Your task to perform on an android device: turn on notifications settings in the gmail app Image 0: 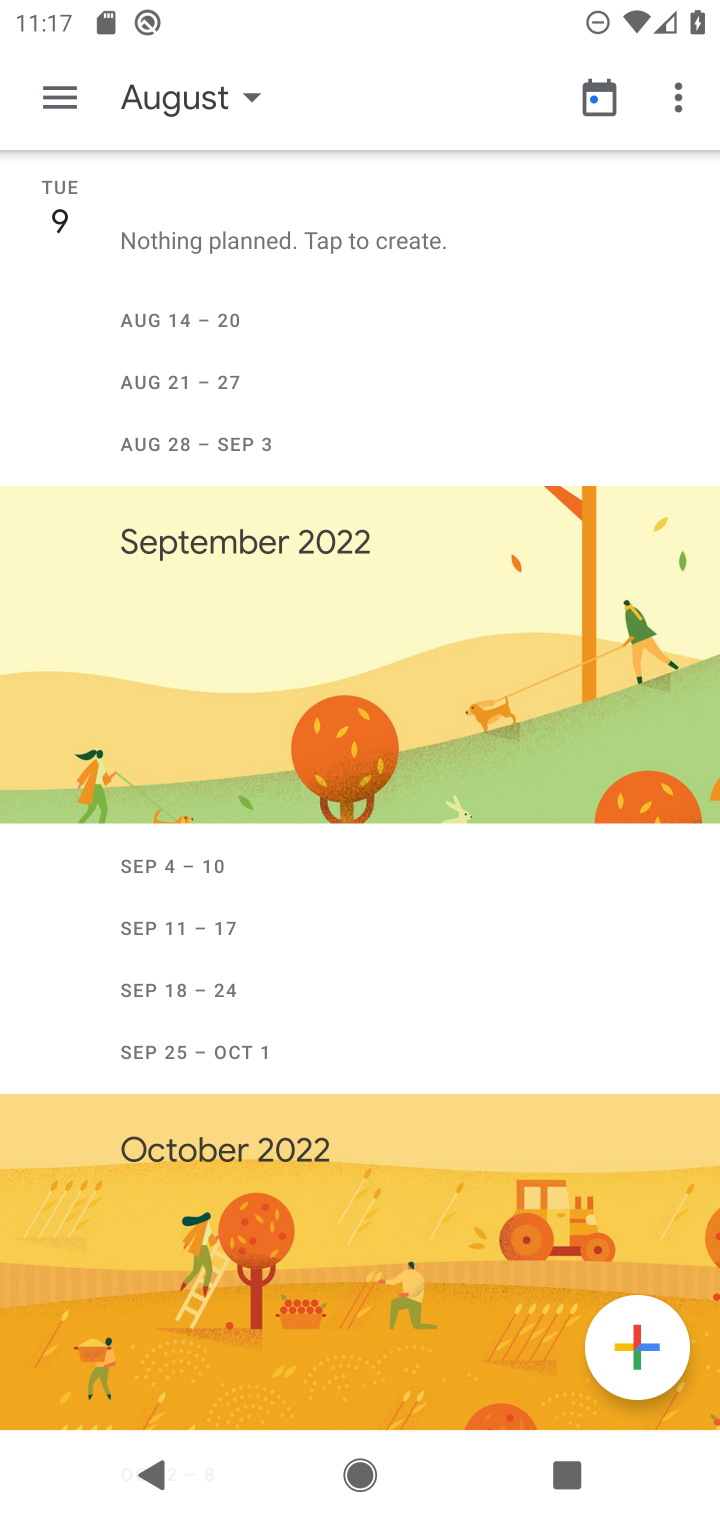
Step 0: press home button
Your task to perform on an android device: turn on notifications settings in the gmail app Image 1: 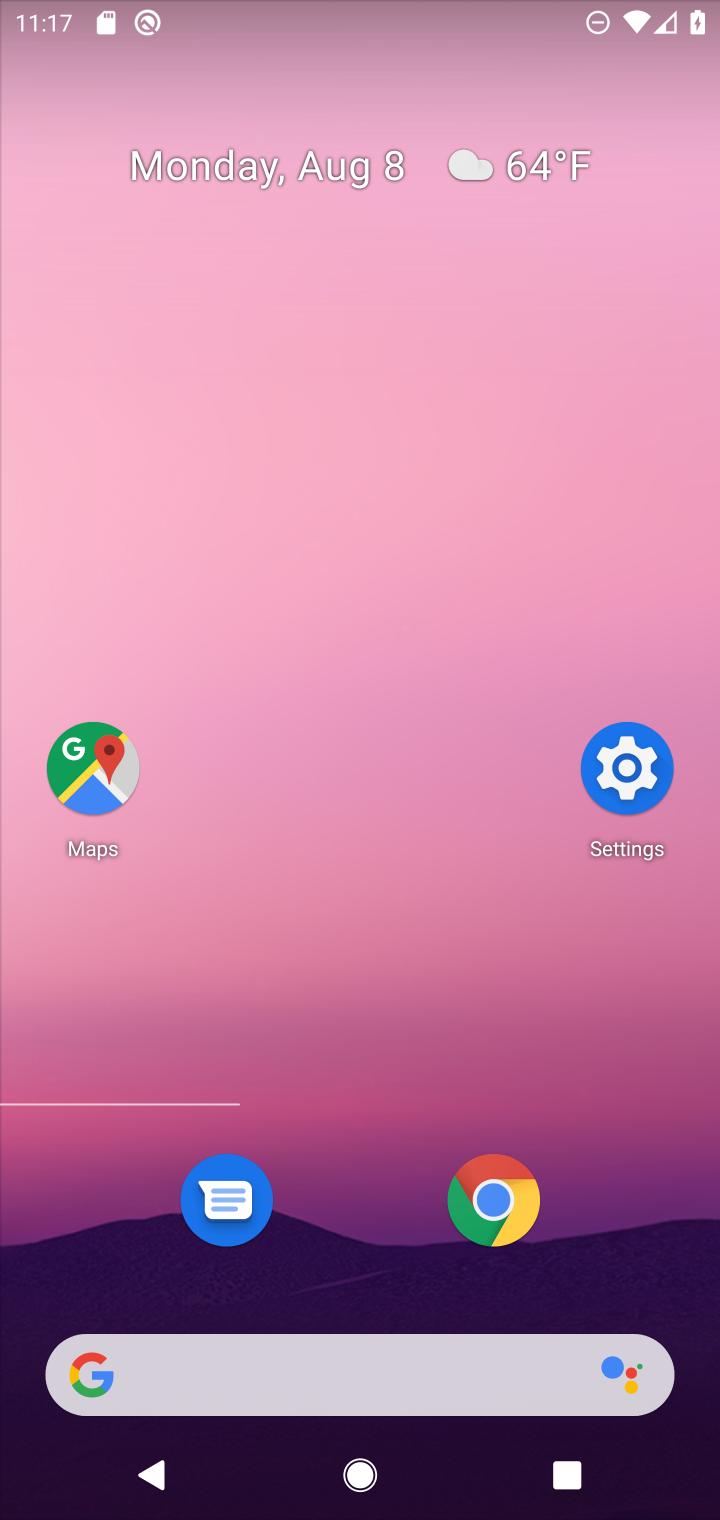
Step 1: drag from (384, 1136) to (706, 43)
Your task to perform on an android device: turn on notifications settings in the gmail app Image 2: 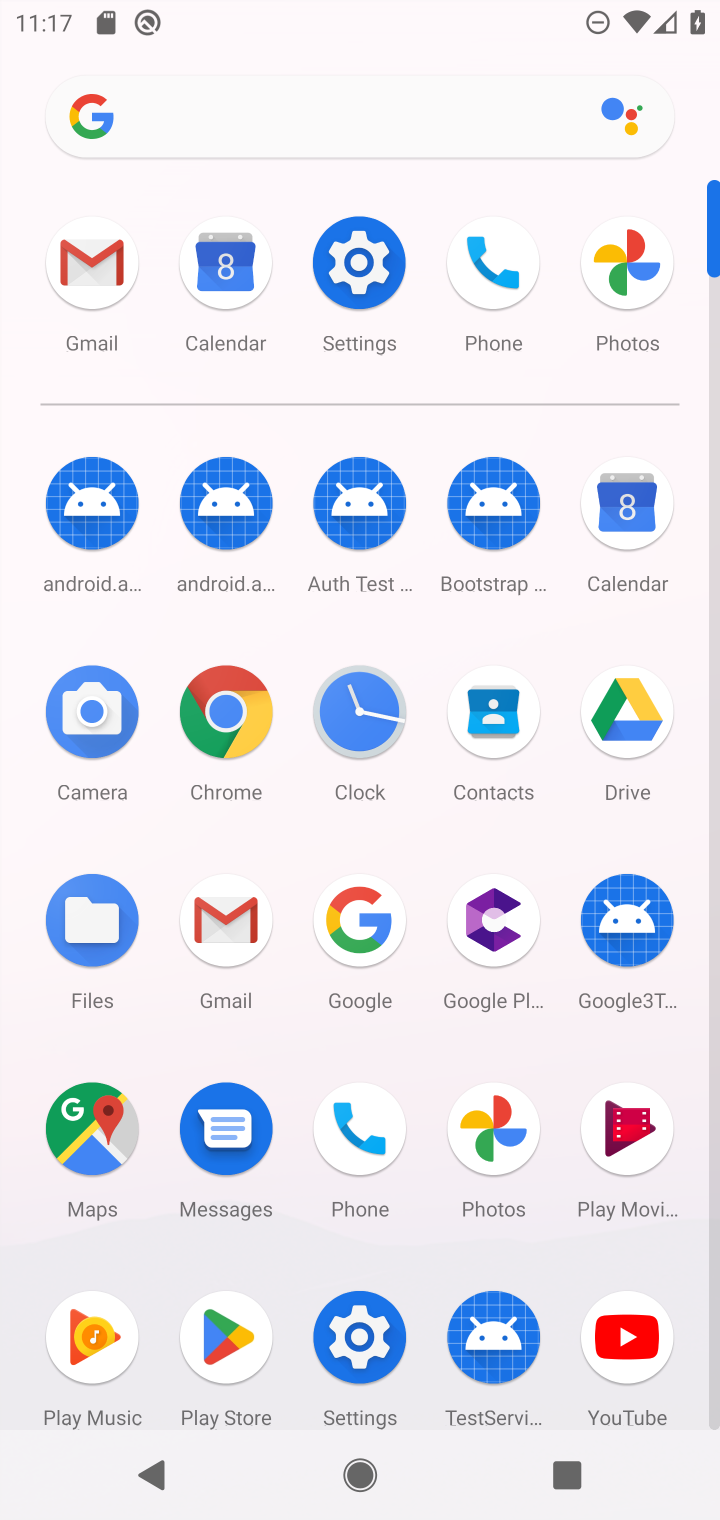
Step 2: click (94, 266)
Your task to perform on an android device: turn on notifications settings in the gmail app Image 3: 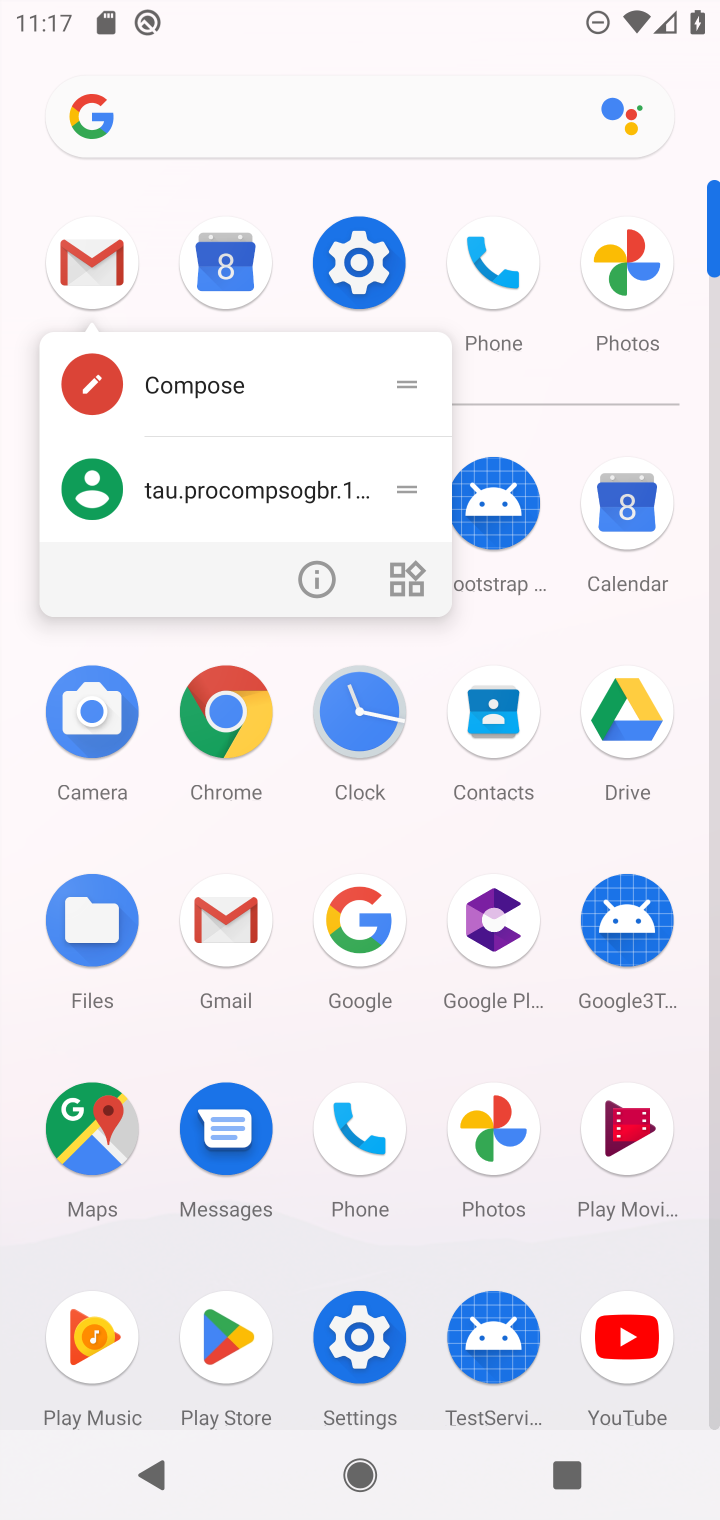
Step 3: click (94, 268)
Your task to perform on an android device: turn on notifications settings in the gmail app Image 4: 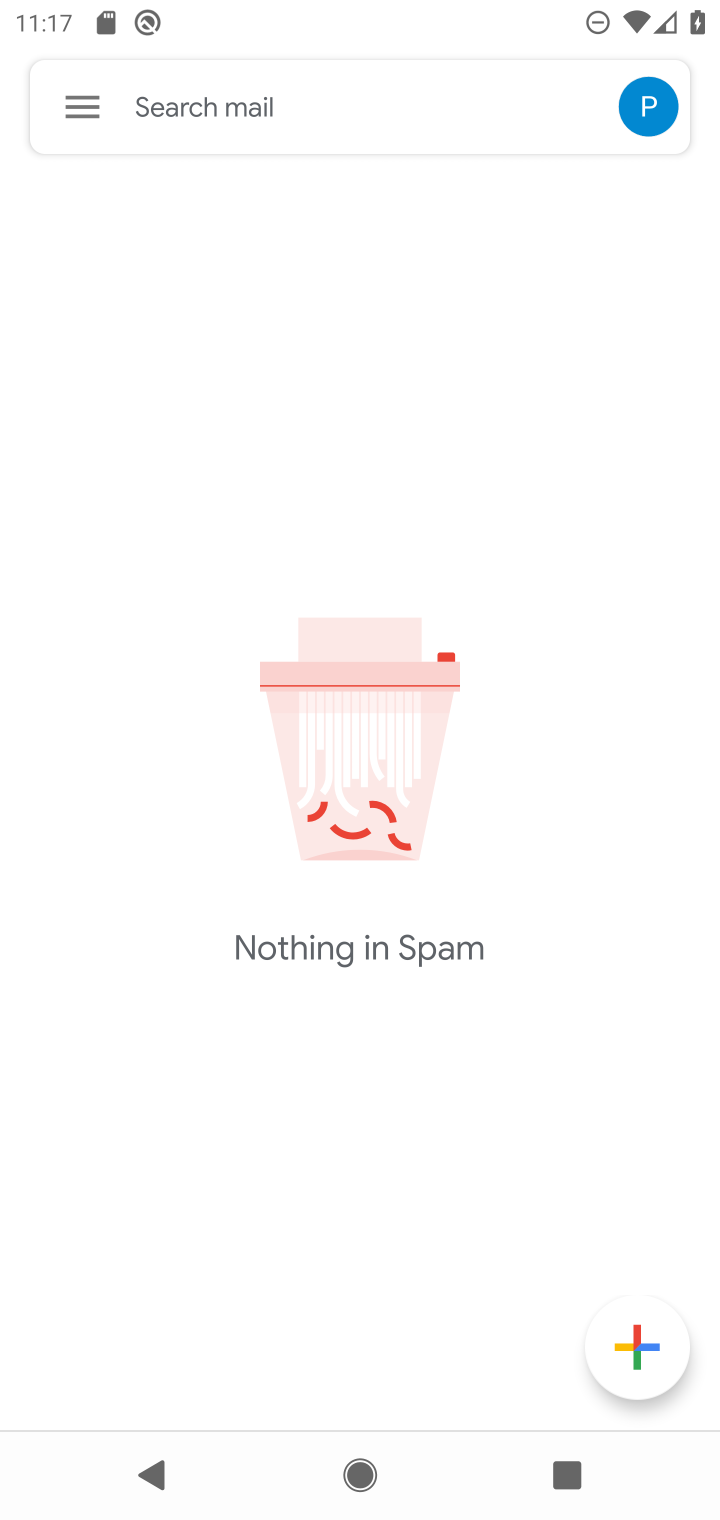
Step 4: click (75, 101)
Your task to perform on an android device: turn on notifications settings in the gmail app Image 5: 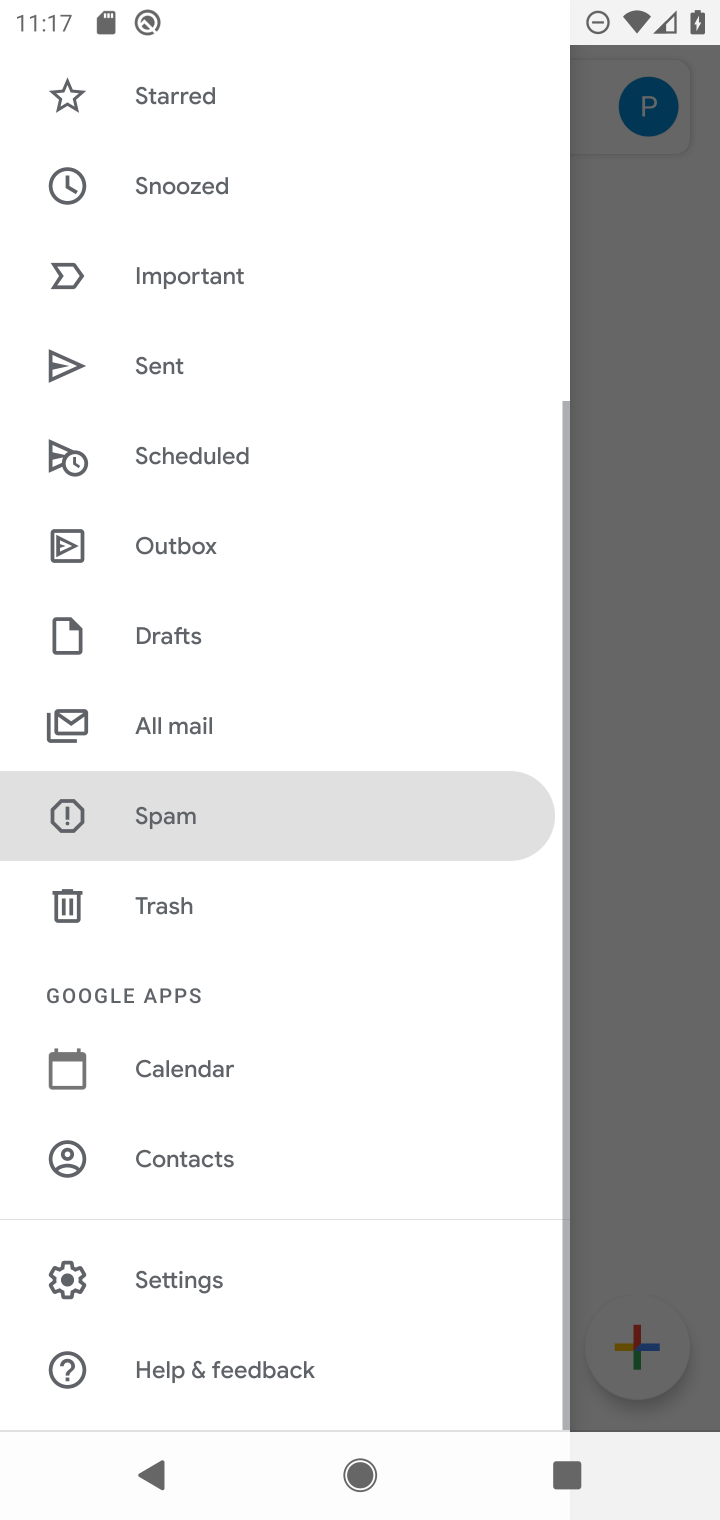
Step 5: click (205, 1278)
Your task to perform on an android device: turn on notifications settings in the gmail app Image 6: 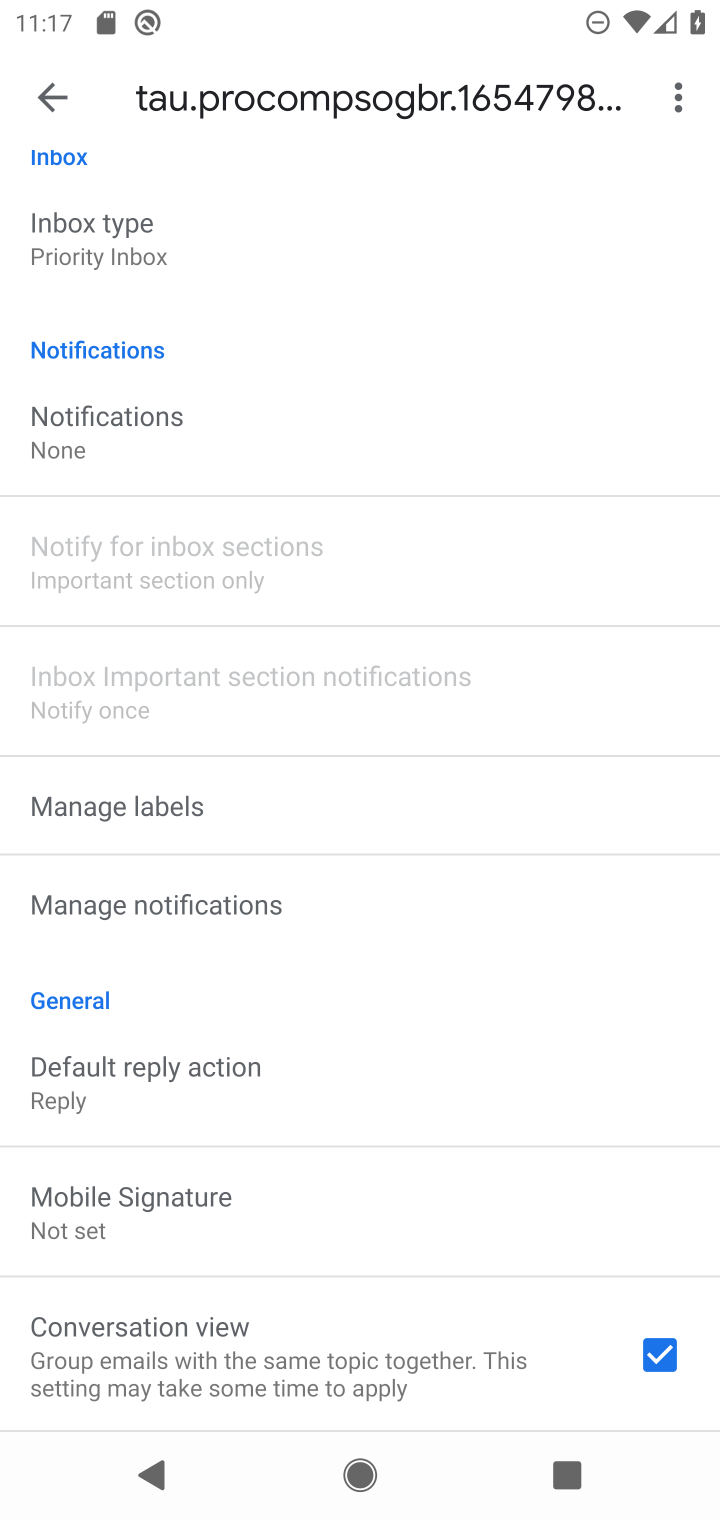
Step 6: click (119, 436)
Your task to perform on an android device: turn on notifications settings in the gmail app Image 7: 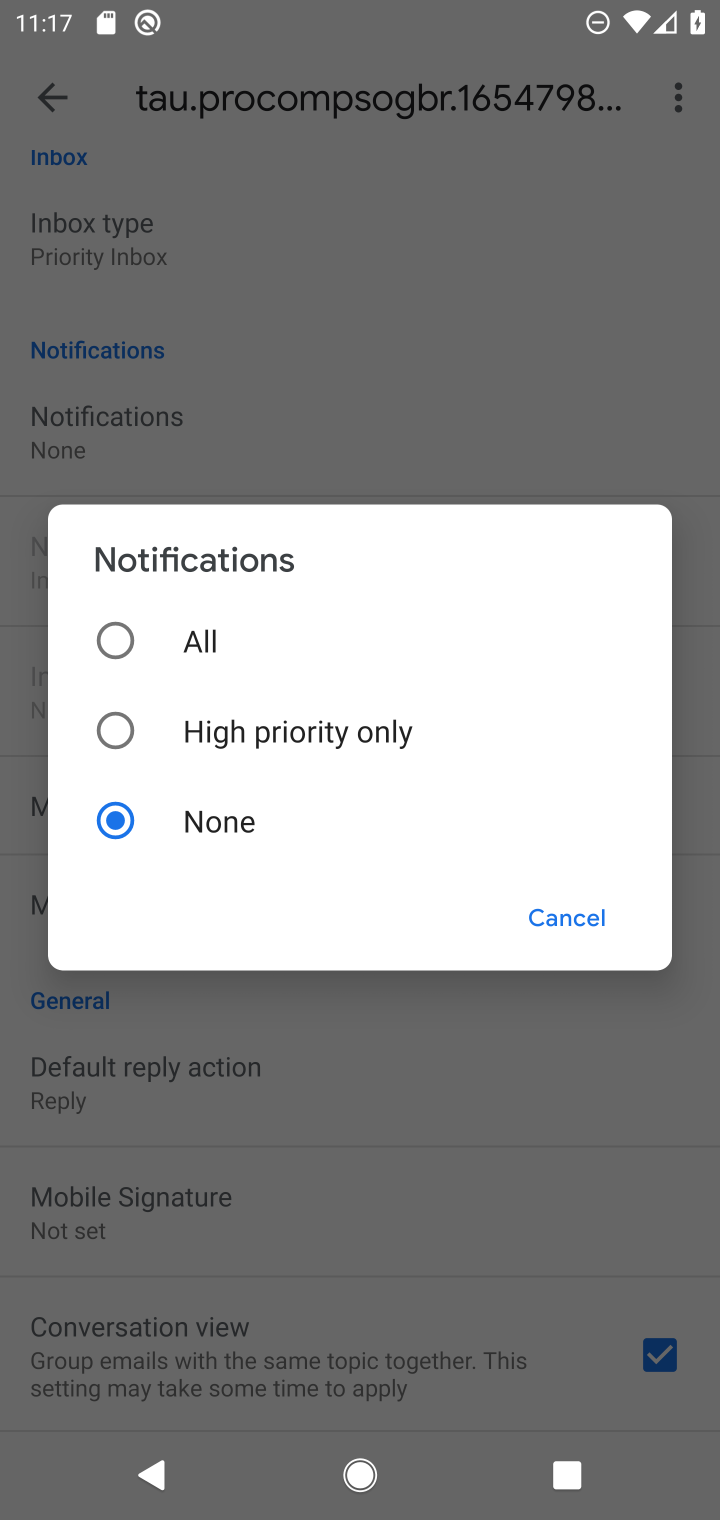
Step 7: click (99, 644)
Your task to perform on an android device: turn on notifications settings in the gmail app Image 8: 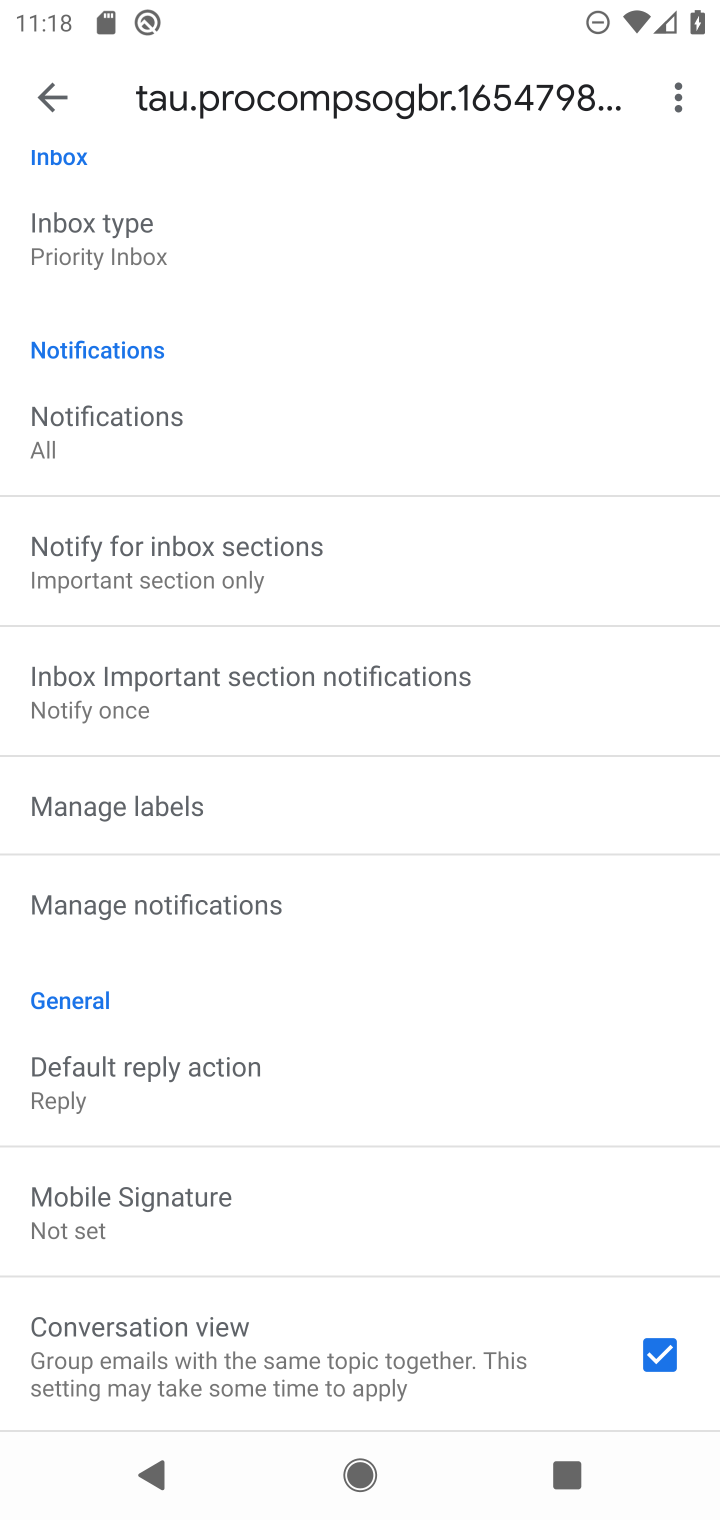
Step 8: task complete